Your task to perform on an android device: snooze an email in the gmail app Image 0: 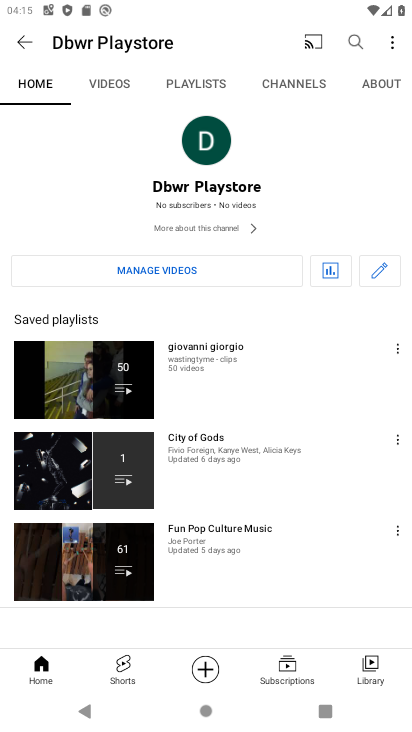
Step 0: press home button
Your task to perform on an android device: snooze an email in the gmail app Image 1: 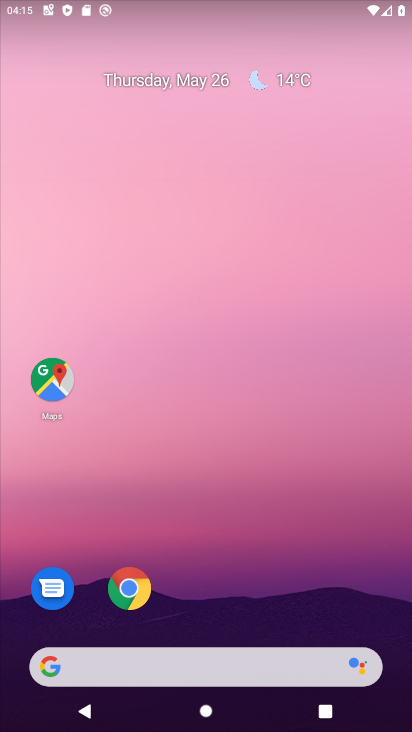
Step 1: drag from (228, 586) to (269, 185)
Your task to perform on an android device: snooze an email in the gmail app Image 2: 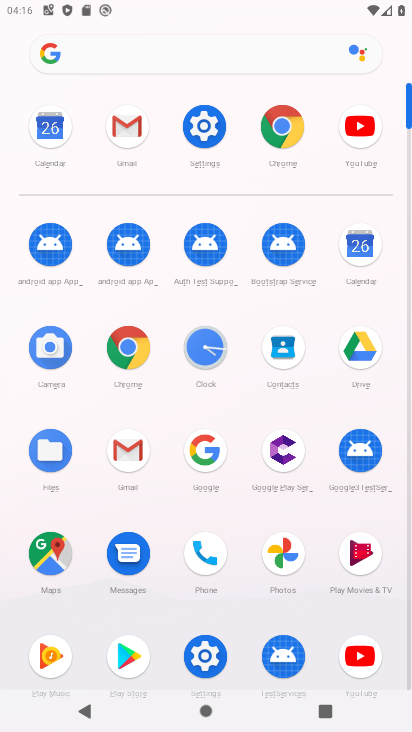
Step 2: click (143, 456)
Your task to perform on an android device: snooze an email in the gmail app Image 3: 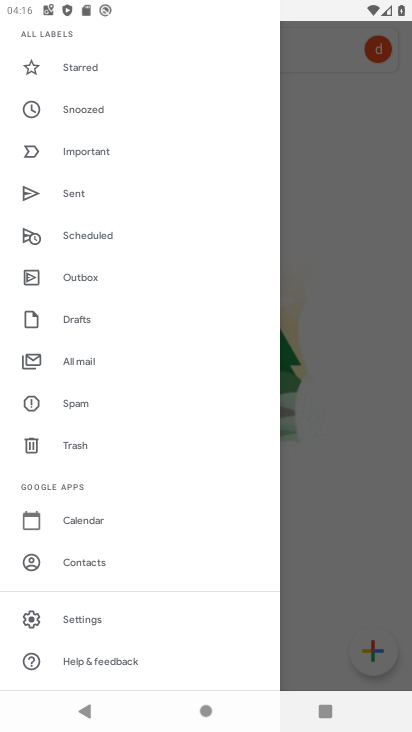
Step 3: click (79, 108)
Your task to perform on an android device: snooze an email in the gmail app Image 4: 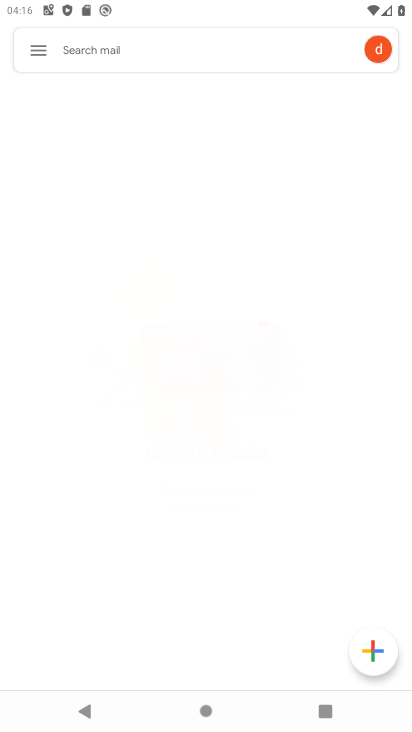
Step 4: task complete